Your task to perform on an android device: turn off location Image 0: 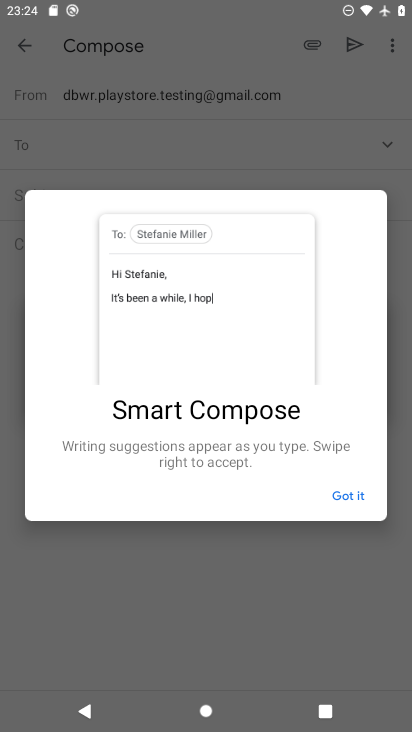
Step 0: press home button
Your task to perform on an android device: turn off location Image 1: 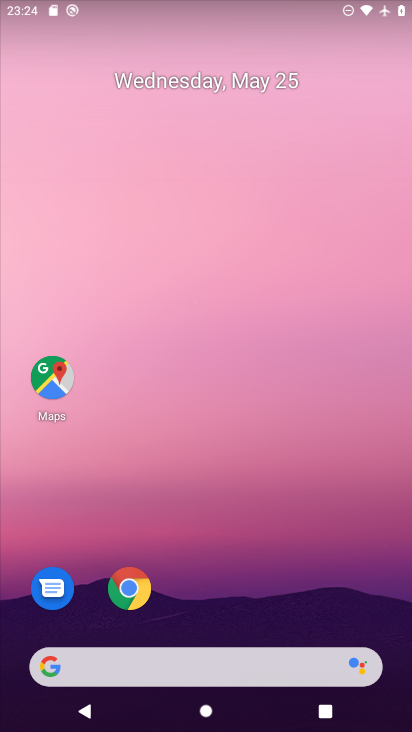
Step 1: drag from (253, 522) to (250, 161)
Your task to perform on an android device: turn off location Image 2: 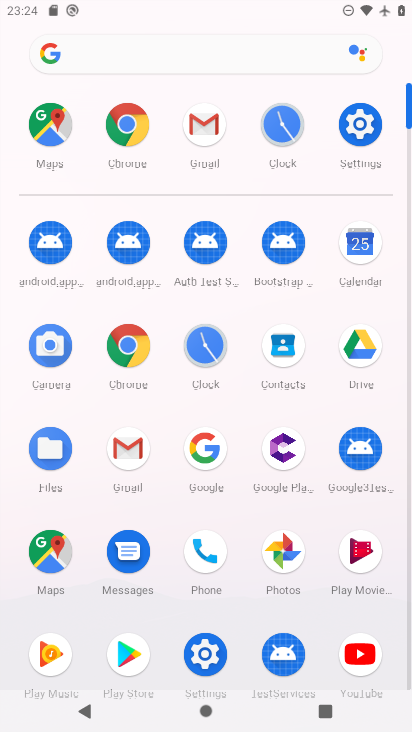
Step 2: click (376, 113)
Your task to perform on an android device: turn off location Image 3: 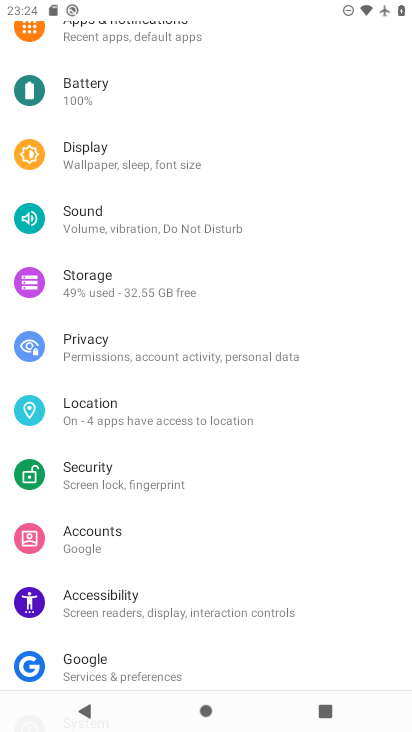
Step 3: click (115, 399)
Your task to perform on an android device: turn off location Image 4: 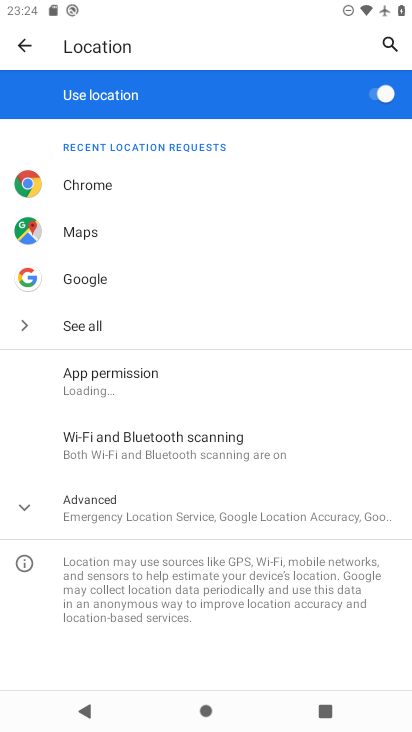
Step 4: click (361, 78)
Your task to perform on an android device: turn off location Image 5: 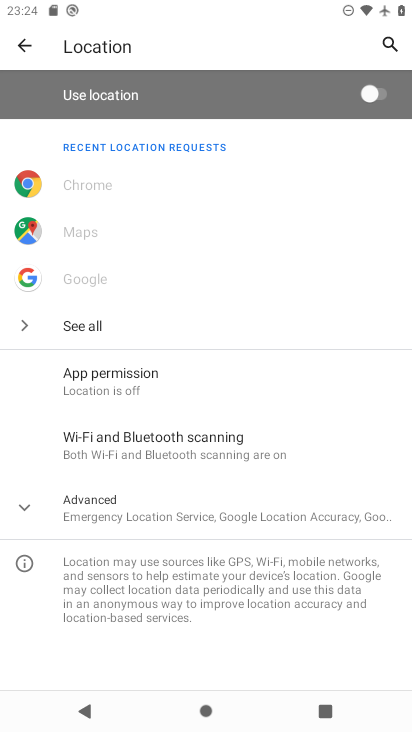
Step 5: task complete